Your task to perform on an android device: open app "NewsBreak: Local News & Alerts" (install if not already installed), go to login, and select forgot password Image 0: 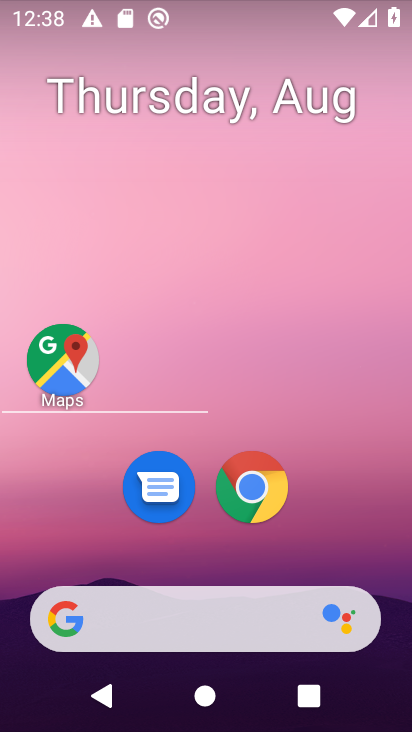
Step 0: press home button
Your task to perform on an android device: open app "NewsBreak: Local News & Alerts" (install if not already installed), go to login, and select forgot password Image 1: 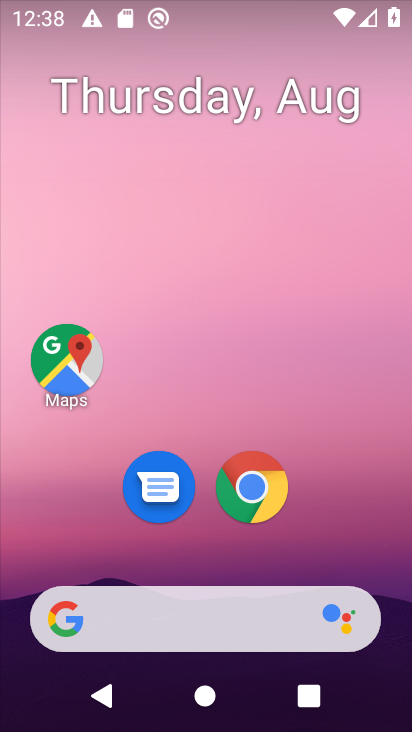
Step 1: drag from (216, 555) to (248, 14)
Your task to perform on an android device: open app "NewsBreak: Local News & Alerts" (install if not already installed), go to login, and select forgot password Image 2: 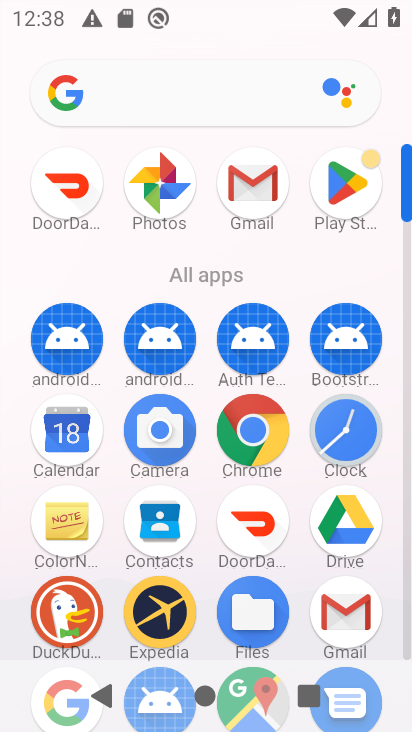
Step 2: click (345, 176)
Your task to perform on an android device: open app "NewsBreak: Local News & Alerts" (install if not already installed), go to login, and select forgot password Image 3: 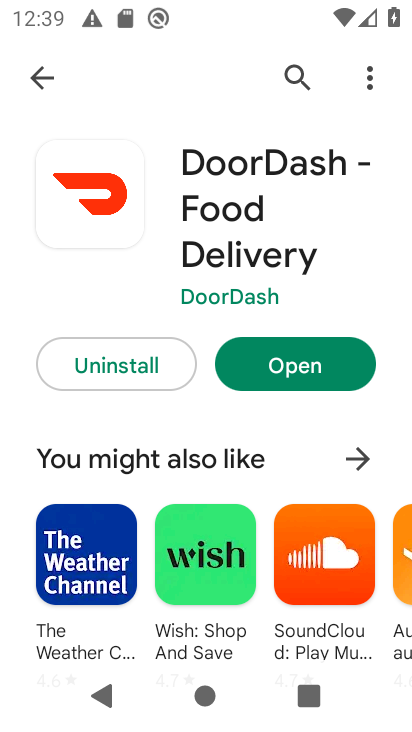
Step 3: click (44, 79)
Your task to perform on an android device: open app "NewsBreak: Local News & Alerts" (install if not already installed), go to login, and select forgot password Image 4: 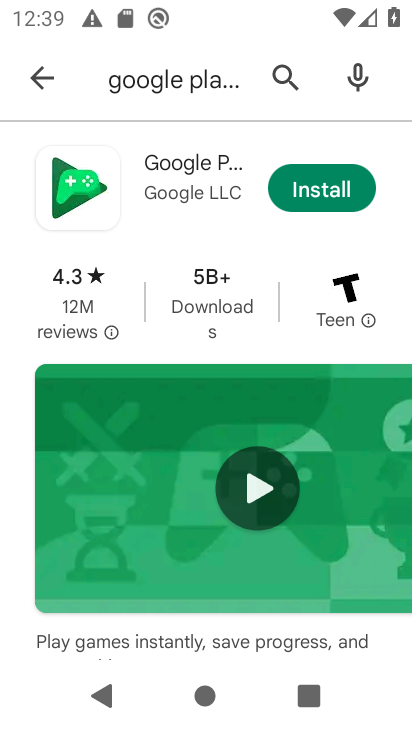
Step 4: click (278, 78)
Your task to perform on an android device: open app "NewsBreak: Local News & Alerts" (install if not already installed), go to login, and select forgot password Image 5: 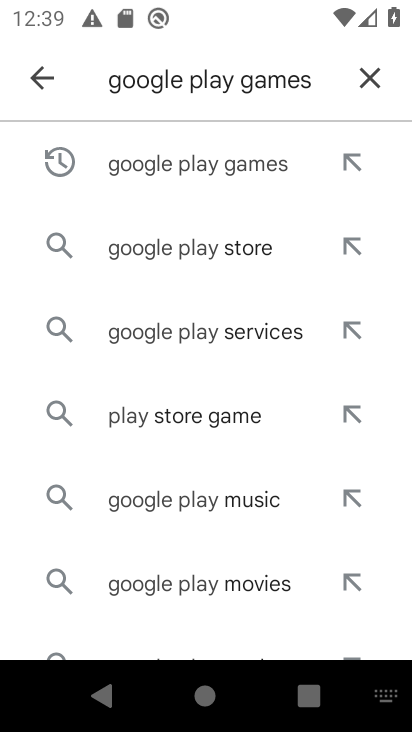
Step 5: click (373, 85)
Your task to perform on an android device: open app "NewsBreak: Local News & Alerts" (install if not already installed), go to login, and select forgot password Image 6: 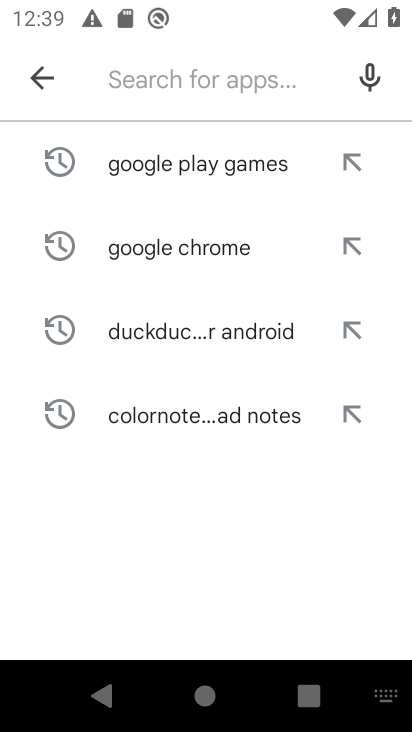
Step 6: type "NewsBreak: Local News & Alerts"
Your task to perform on an android device: open app "NewsBreak: Local News & Alerts" (install if not already installed), go to login, and select forgot password Image 7: 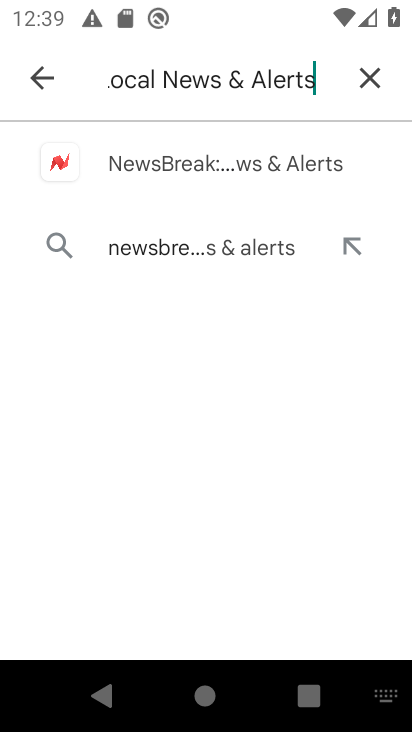
Step 7: click (223, 161)
Your task to perform on an android device: open app "NewsBreak: Local News & Alerts" (install if not already installed), go to login, and select forgot password Image 8: 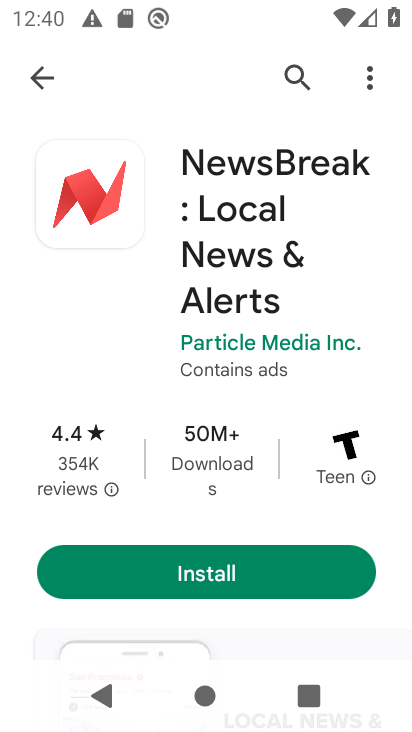
Step 8: click (219, 569)
Your task to perform on an android device: open app "NewsBreak: Local News & Alerts" (install if not already installed), go to login, and select forgot password Image 9: 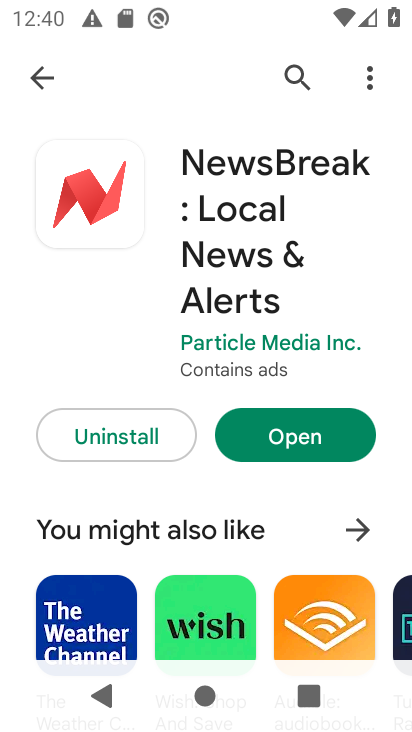
Step 9: click (301, 433)
Your task to perform on an android device: open app "NewsBreak: Local News & Alerts" (install if not already installed), go to login, and select forgot password Image 10: 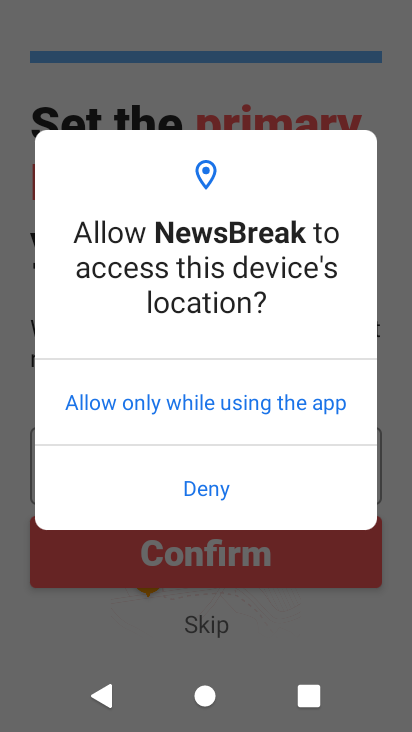
Step 10: click (199, 408)
Your task to perform on an android device: open app "NewsBreak: Local News & Alerts" (install if not already installed), go to login, and select forgot password Image 11: 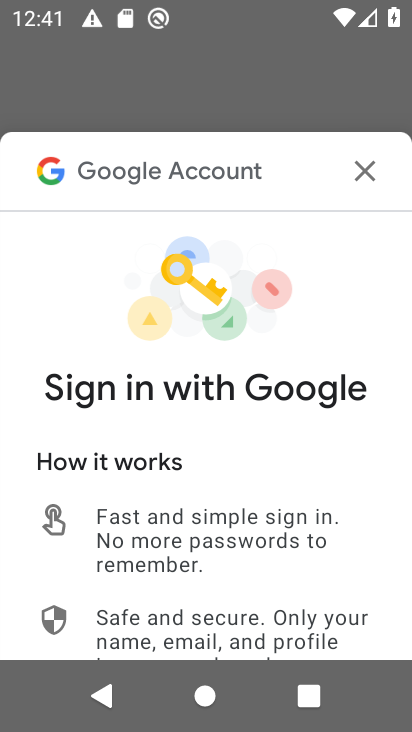
Step 11: drag from (208, 605) to (221, 80)
Your task to perform on an android device: open app "NewsBreak: Local News & Alerts" (install if not already installed), go to login, and select forgot password Image 12: 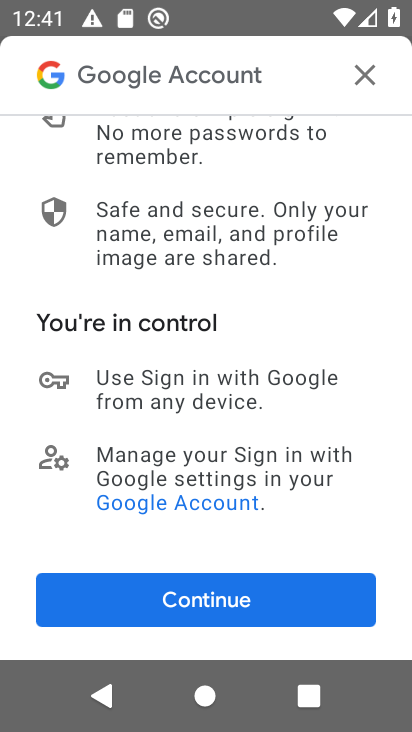
Step 12: click (215, 605)
Your task to perform on an android device: open app "NewsBreak: Local News & Alerts" (install if not already installed), go to login, and select forgot password Image 13: 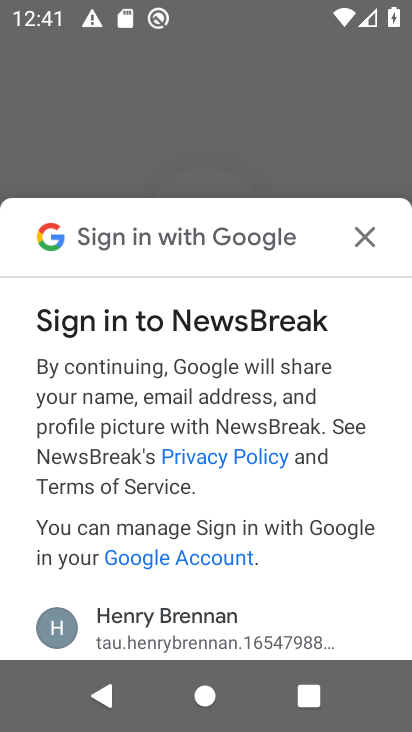
Step 13: drag from (226, 589) to (269, 140)
Your task to perform on an android device: open app "NewsBreak: Local News & Alerts" (install if not already installed), go to login, and select forgot password Image 14: 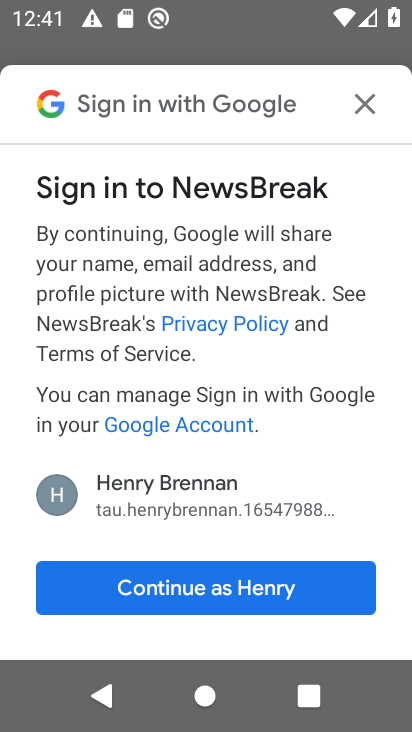
Step 14: click (223, 588)
Your task to perform on an android device: open app "NewsBreak: Local News & Alerts" (install if not already installed), go to login, and select forgot password Image 15: 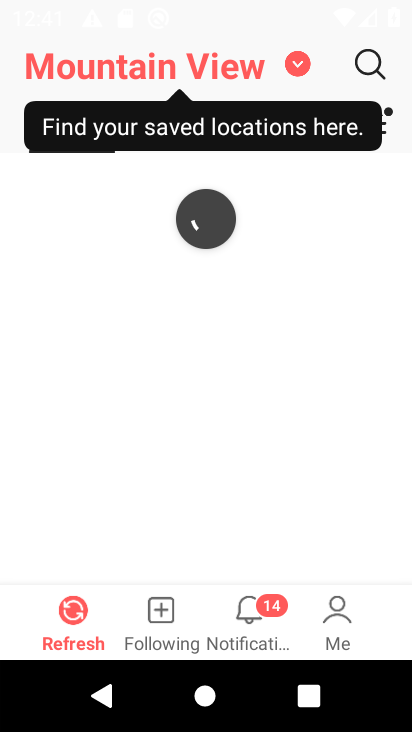
Step 15: task complete